Your task to perform on an android device: turn off improve location accuracy Image 0: 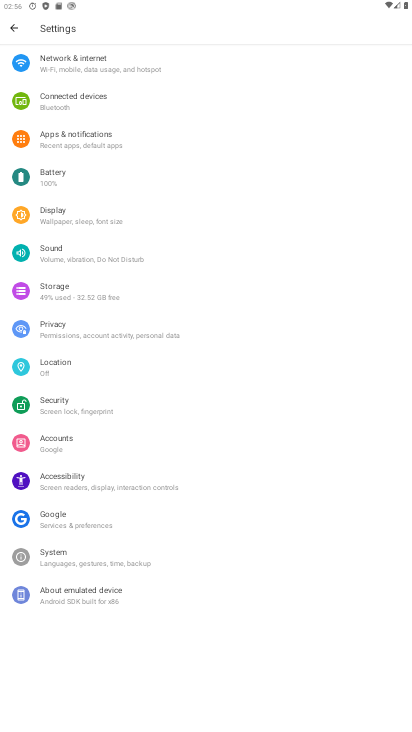
Step 0: click (79, 375)
Your task to perform on an android device: turn off improve location accuracy Image 1: 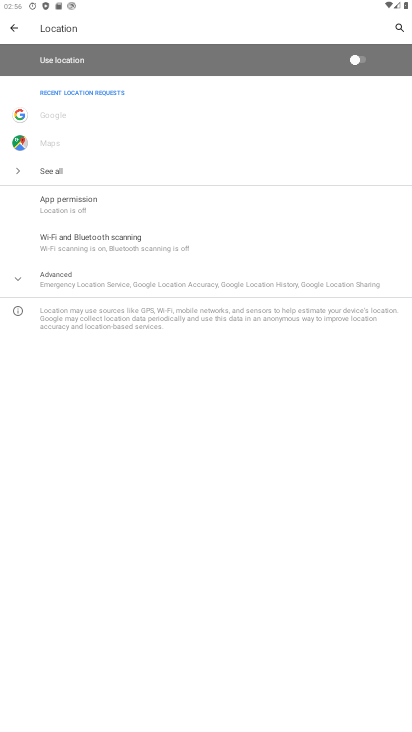
Step 1: click (109, 280)
Your task to perform on an android device: turn off improve location accuracy Image 2: 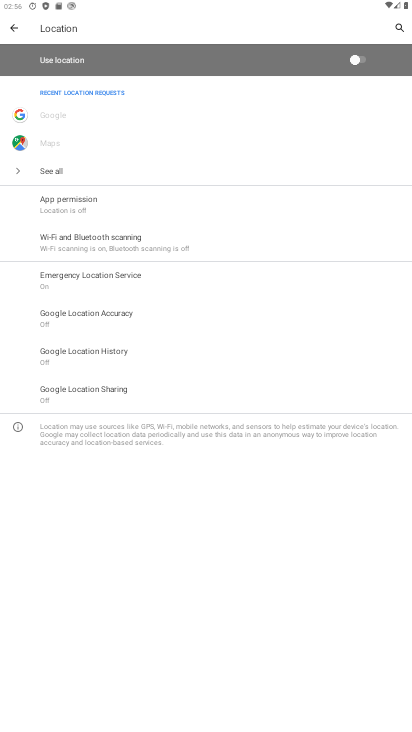
Step 2: click (141, 322)
Your task to perform on an android device: turn off improve location accuracy Image 3: 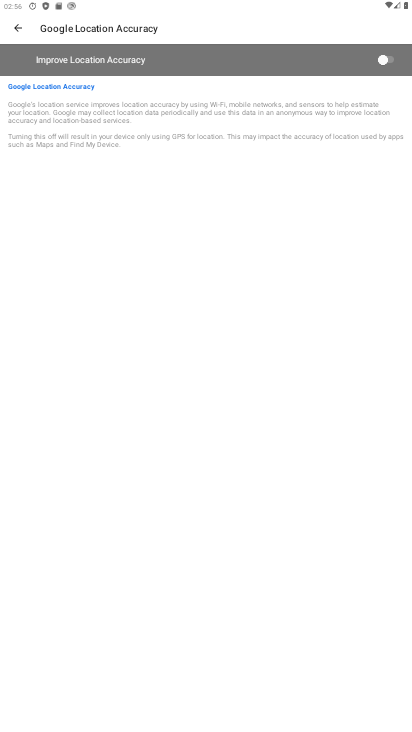
Step 3: task complete